Your task to perform on an android device: Turn off the flashlight Image 0: 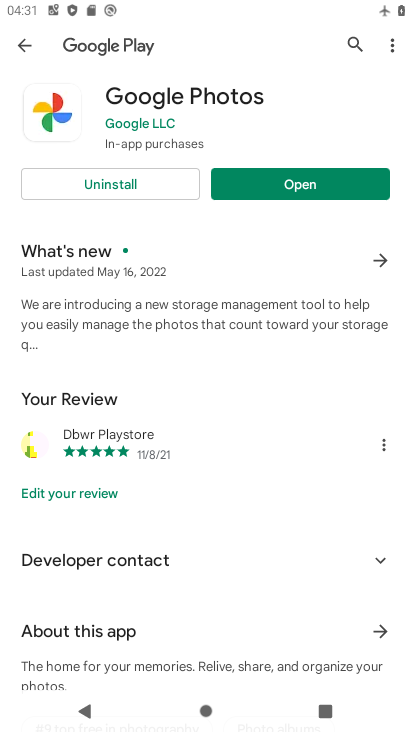
Step 0: press home button
Your task to perform on an android device: Turn off the flashlight Image 1: 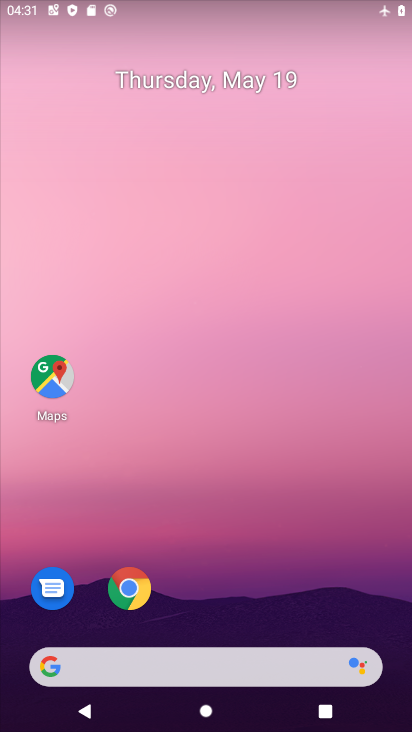
Step 1: drag from (190, 599) to (299, 38)
Your task to perform on an android device: Turn off the flashlight Image 2: 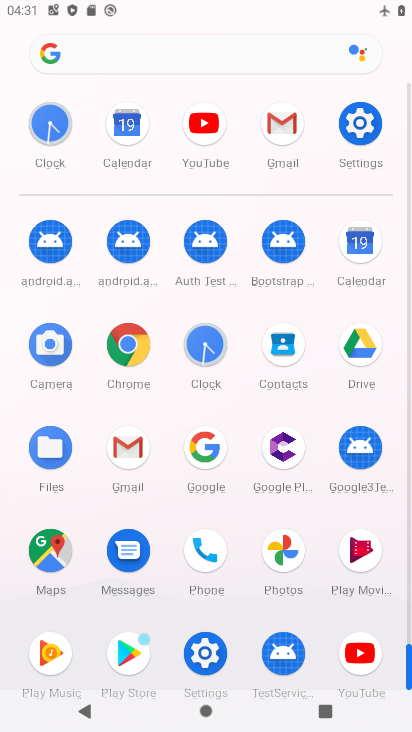
Step 2: click (205, 642)
Your task to perform on an android device: Turn off the flashlight Image 3: 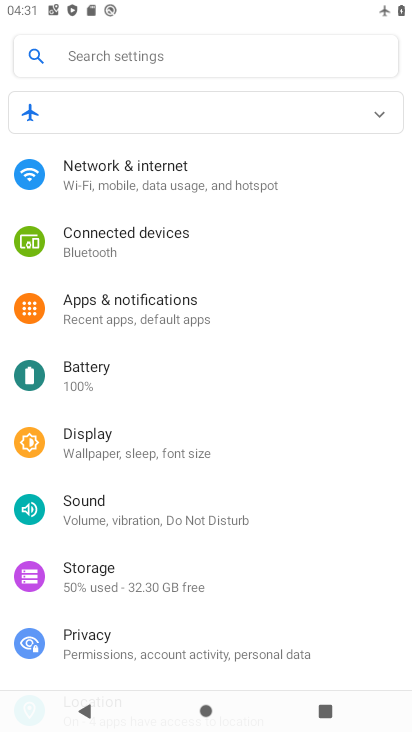
Step 3: click (201, 50)
Your task to perform on an android device: Turn off the flashlight Image 4: 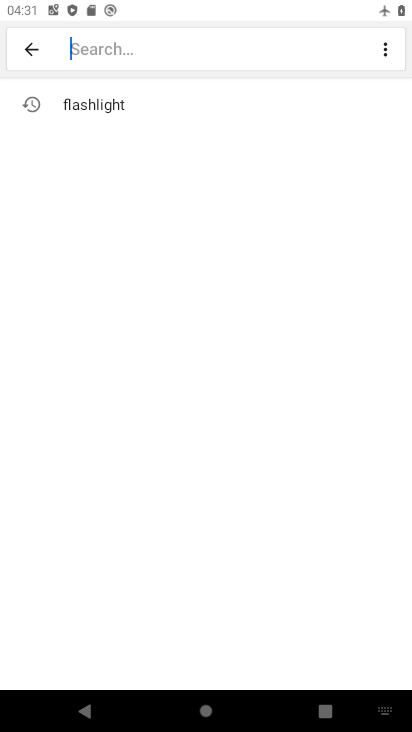
Step 4: type "flashlight"
Your task to perform on an android device: Turn off the flashlight Image 5: 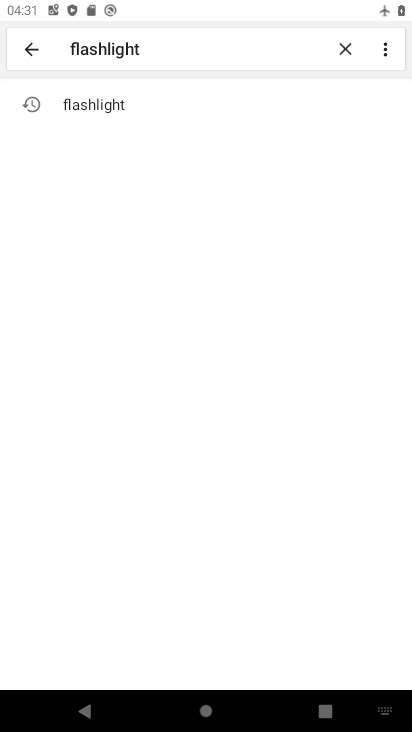
Step 5: click (146, 103)
Your task to perform on an android device: Turn off the flashlight Image 6: 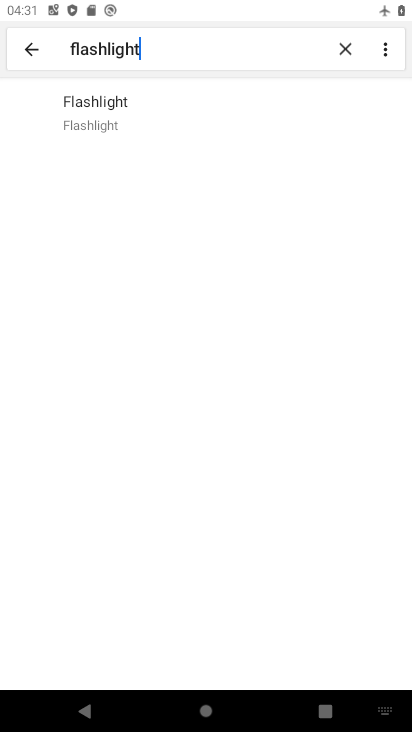
Step 6: click (146, 103)
Your task to perform on an android device: Turn off the flashlight Image 7: 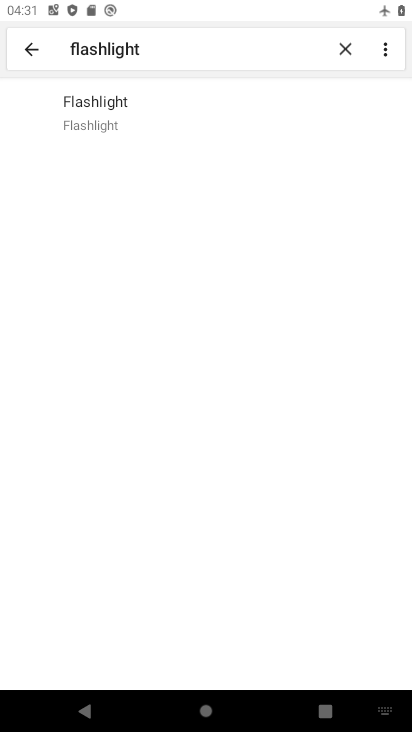
Step 7: task complete